Your task to perform on an android device: find photos in the google photos app Image 0: 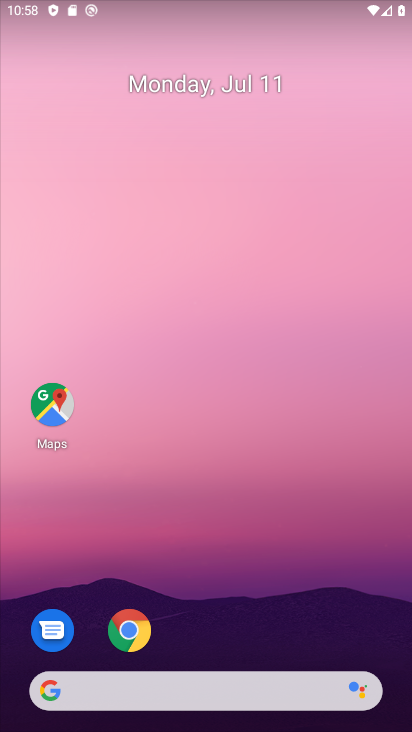
Step 0: drag from (222, 549) to (259, 9)
Your task to perform on an android device: find photos in the google photos app Image 1: 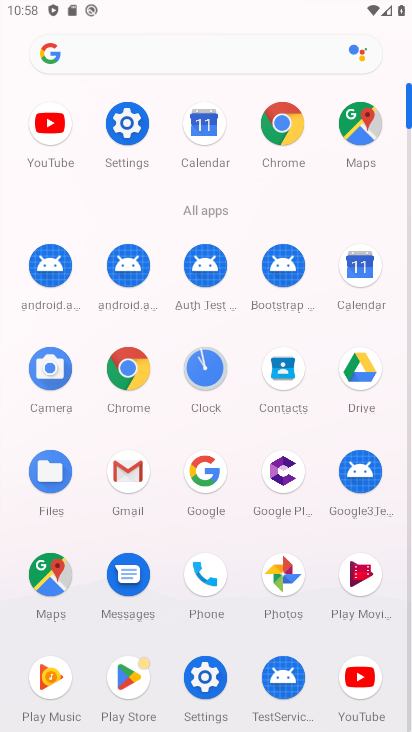
Step 1: click (294, 566)
Your task to perform on an android device: find photos in the google photos app Image 2: 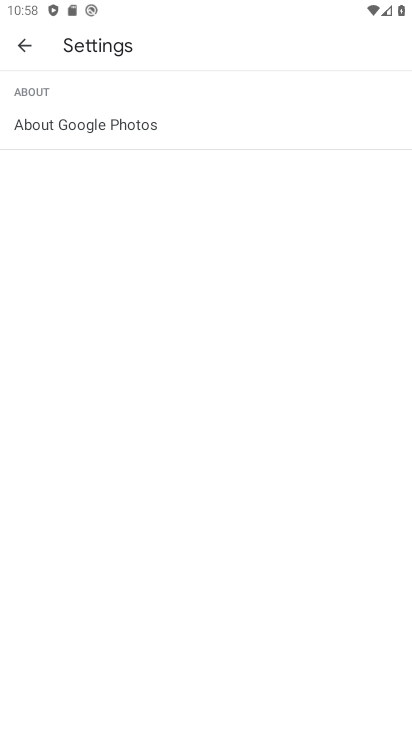
Step 2: click (25, 47)
Your task to perform on an android device: find photos in the google photos app Image 3: 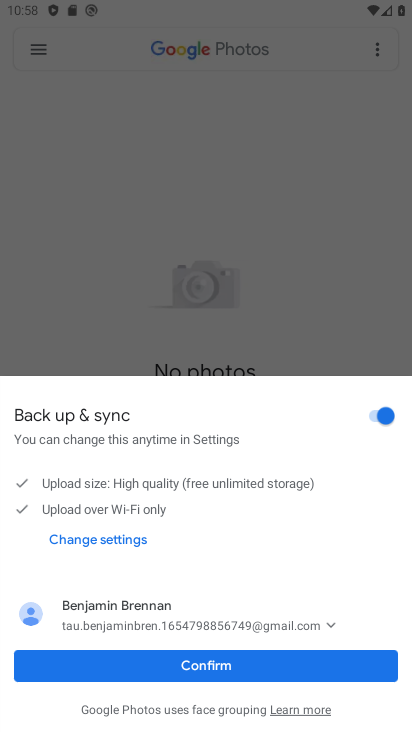
Step 3: click (260, 670)
Your task to perform on an android device: find photos in the google photos app Image 4: 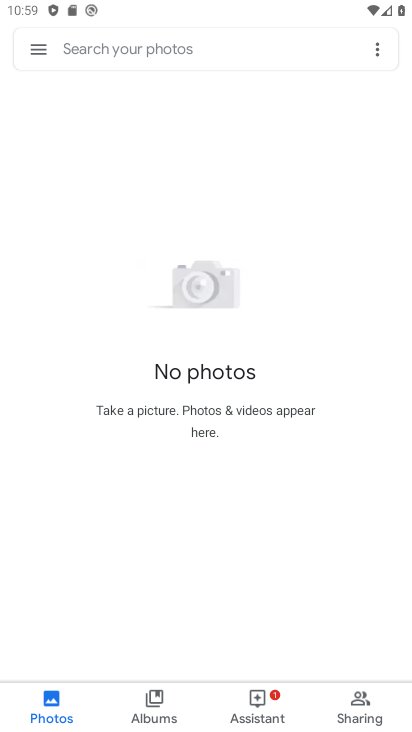
Step 4: task complete